Your task to perform on an android device: Open Google Chrome Image 0: 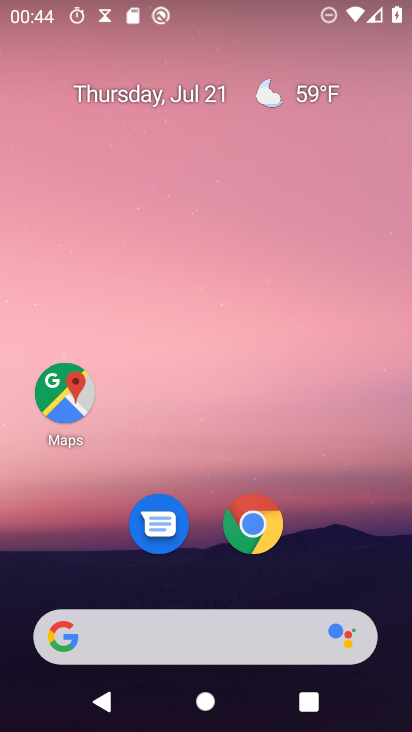
Step 0: click (248, 524)
Your task to perform on an android device: Open Google Chrome Image 1: 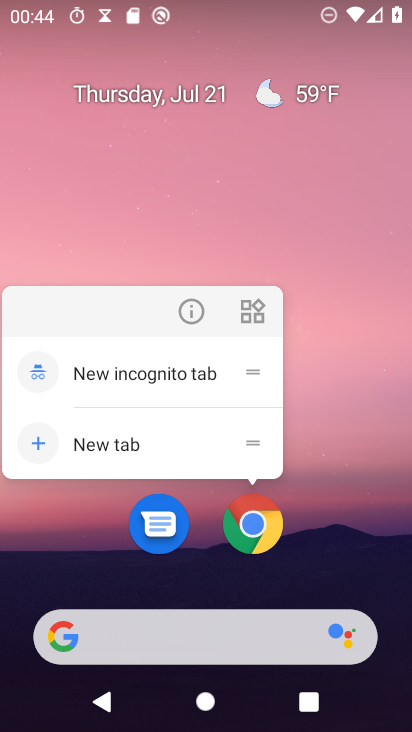
Step 1: click (253, 523)
Your task to perform on an android device: Open Google Chrome Image 2: 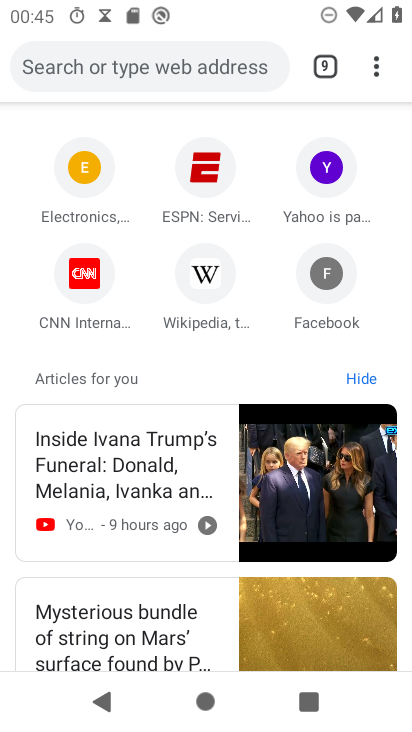
Step 2: task complete